Your task to perform on an android device: toggle translation in the chrome app Image 0: 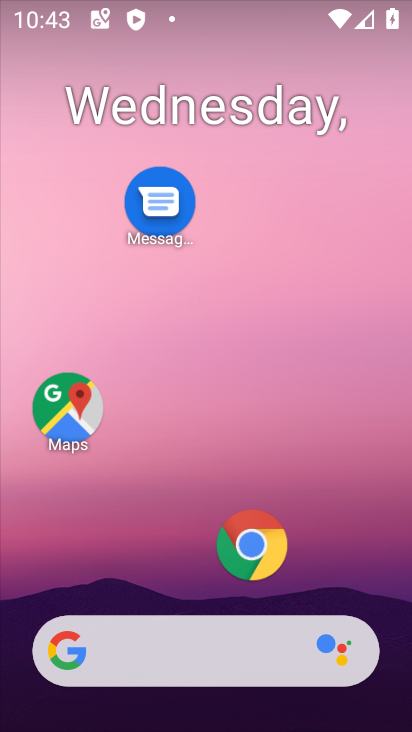
Step 0: click (245, 541)
Your task to perform on an android device: toggle translation in the chrome app Image 1: 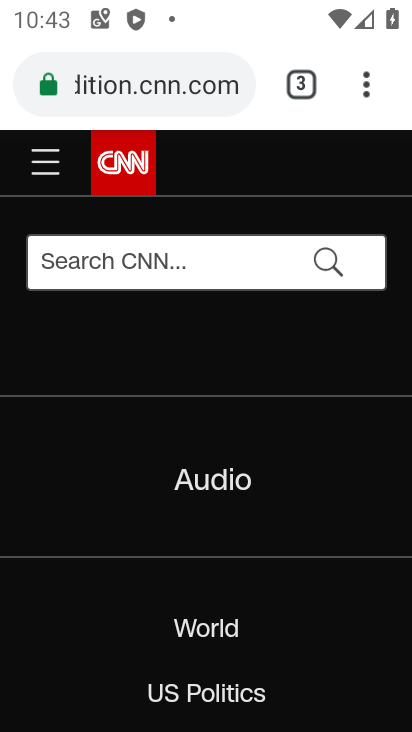
Step 1: click (372, 95)
Your task to perform on an android device: toggle translation in the chrome app Image 2: 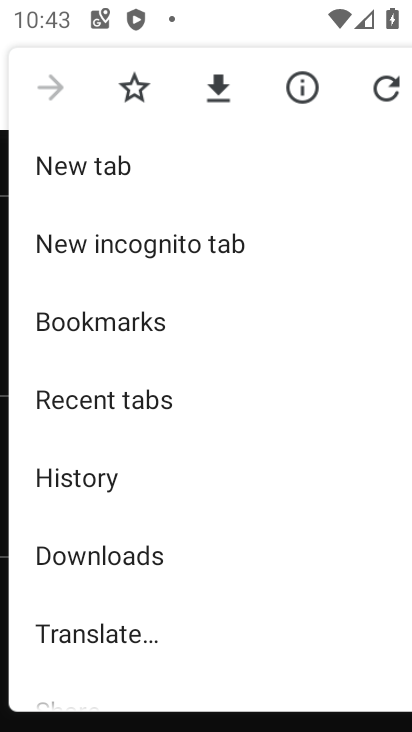
Step 2: drag from (217, 564) to (255, 368)
Your task to perform on an android device: toggle translation in the chrome app Image 3: 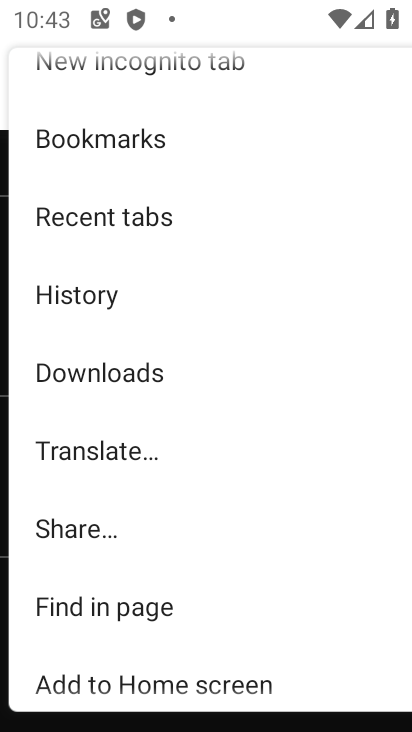
Step 3: drag from (222, 571) to (242, 413)
Your task to perform on an android device: toggle translation in the chrome app Image 4: 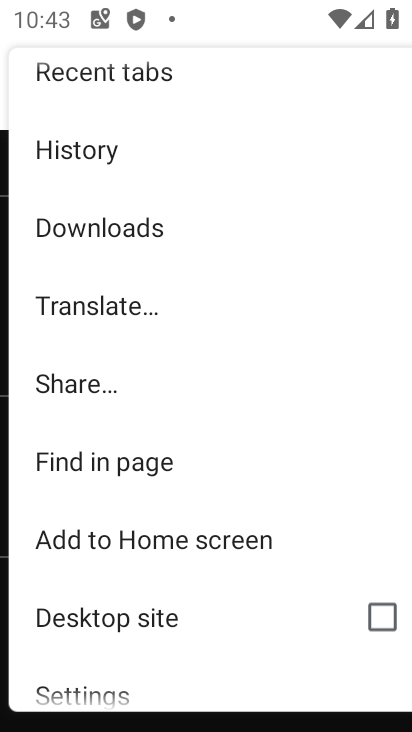
Step 4: drag from (165, 644) to (208, 372)
Your task to perform on an android device: toggle translation in the chrome app Image 5: 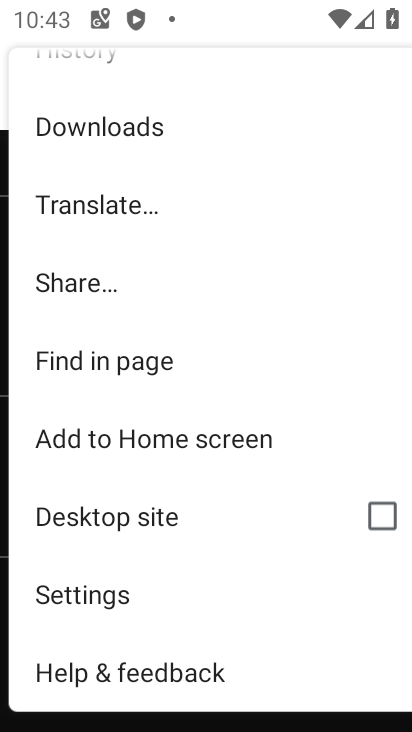
Step 5: click (149, 580)
Your task to perform on an android device: toggle translation in the chrome app Image 6: 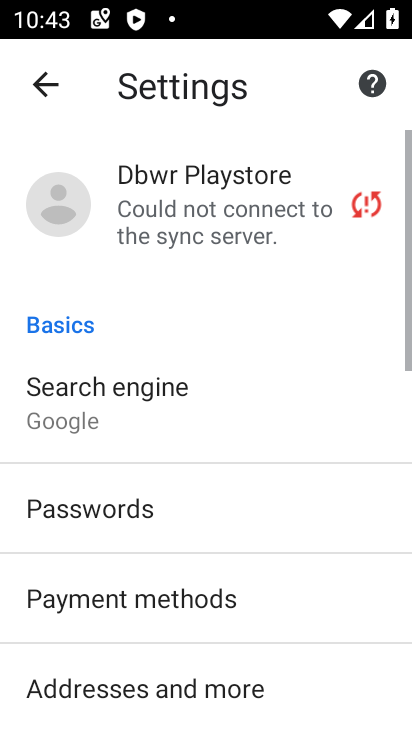
Step 6: drag from (161, 561) to (235, 316)
Your task to perform on an android device: toggle translation in the chrome app Image 7: 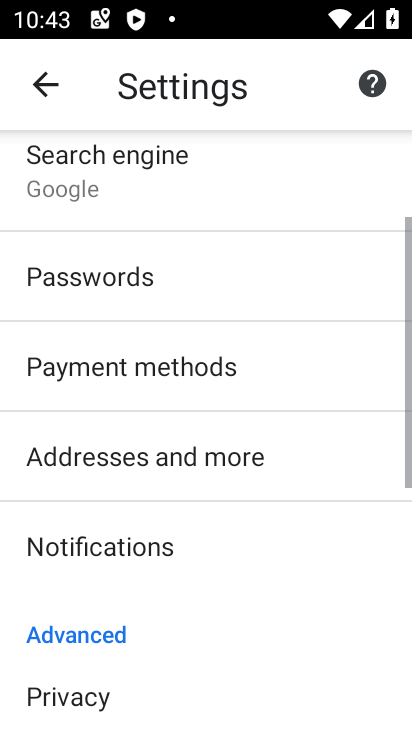
Step 7: drag from (204, 602) to (241, 357)
Your task to perform on an android device: toggle translation in the chrome app Image 8: 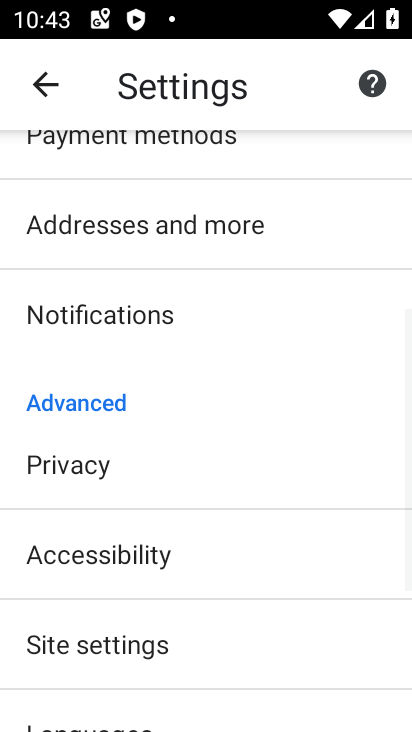
Step 8: drag from (167, 616) to (226, 278)
Your task to perform on an android device: toggle translation in the chrome app Image 9: 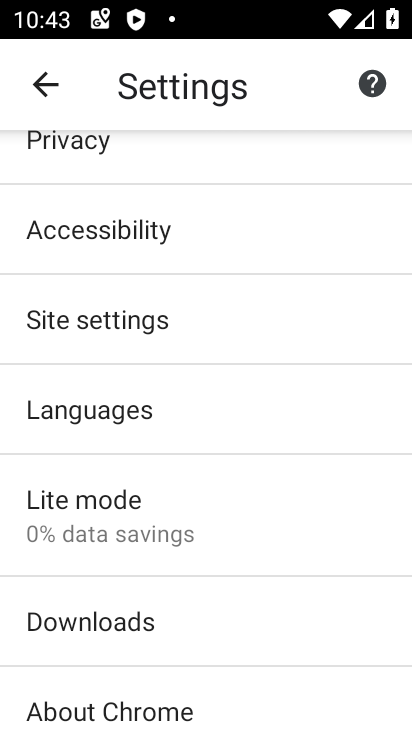
Step 9: click (122, 429)
Your task to perform on an android device: toggle translation in the chrome app Image 10: 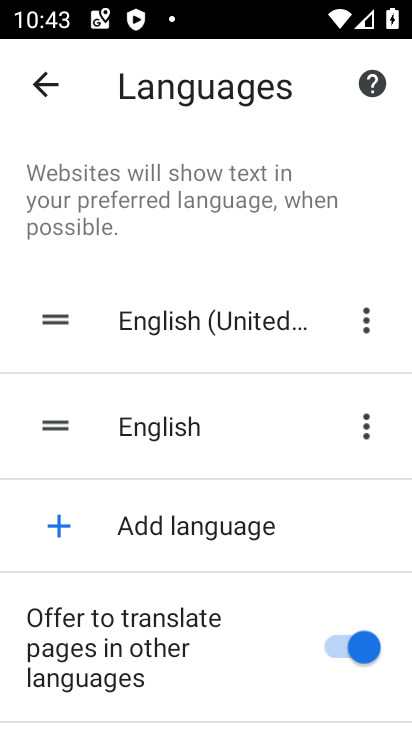
Step 10: click (331, 652)
Your task to perform on an android device: toggle translation in the chrome app Image 11: 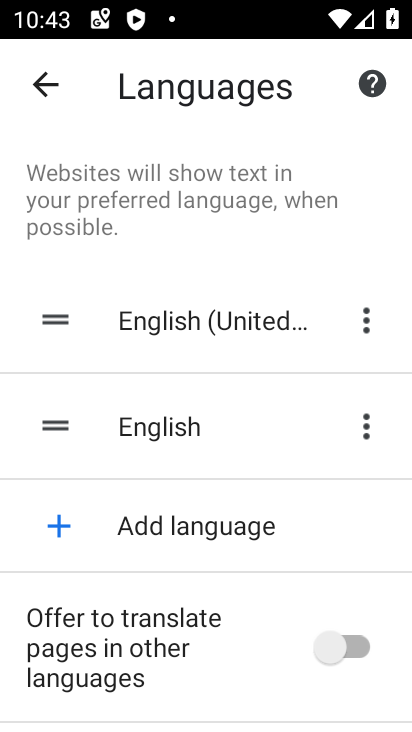
Step 11: task complete